Your task to perform on an android device: Open calendar and show me the second week of next month Image 0: 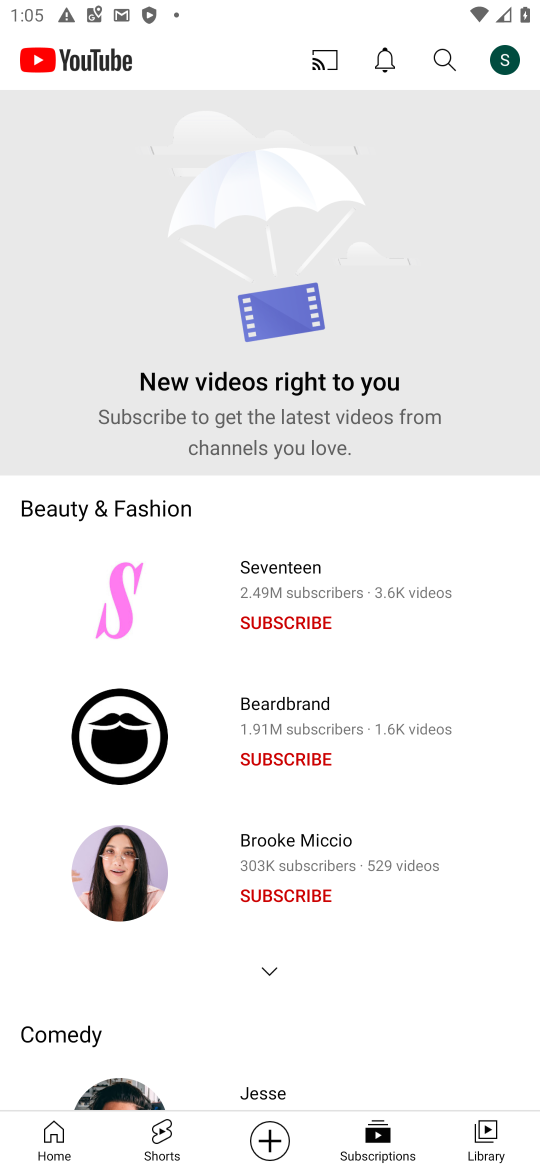
Step 0: press home button
Your task to perform on an android device: Open calendar and show me the second week of next month Image 1: 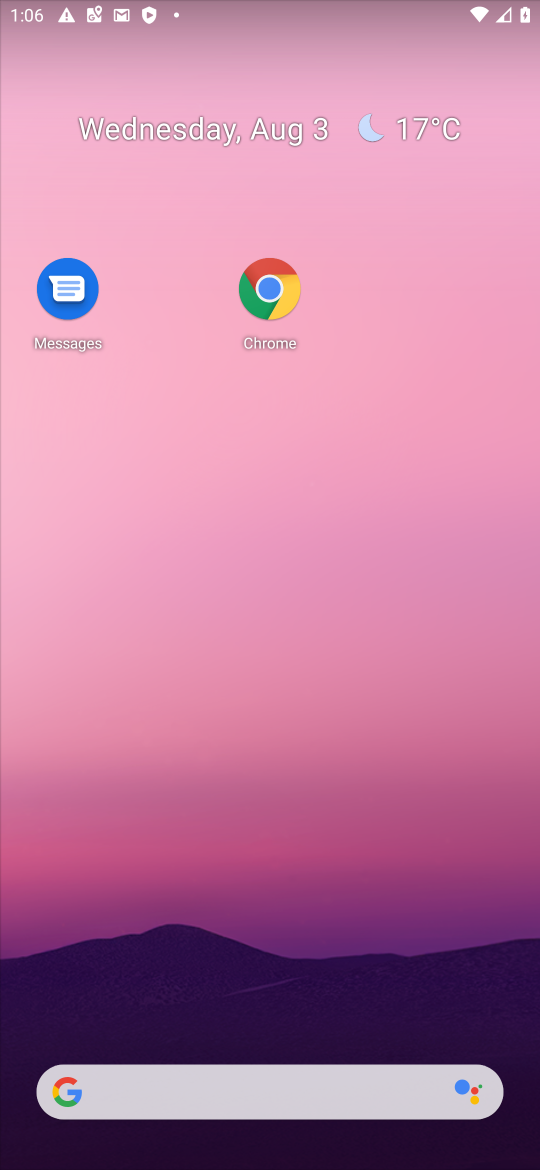
Step 1: drag from (311, 997) to (290, 270)
Your task to perform on an android device: Open calendar and show me the second week of next month Image 2: 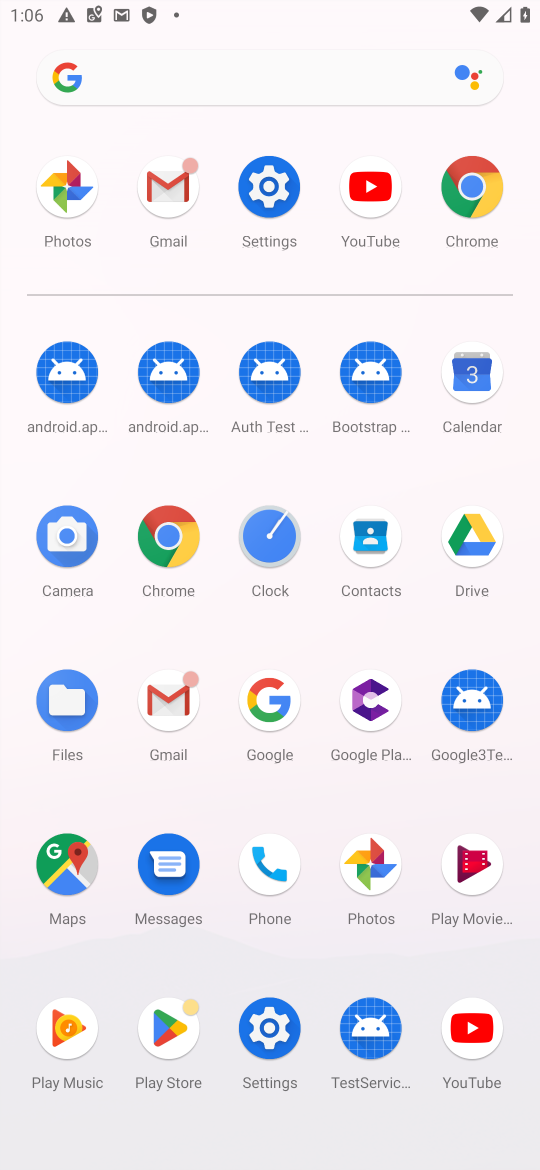
Step 2: click (467, 410)
Your task to perform on an android device: Open calendar and show me the second week of next month Image 3: 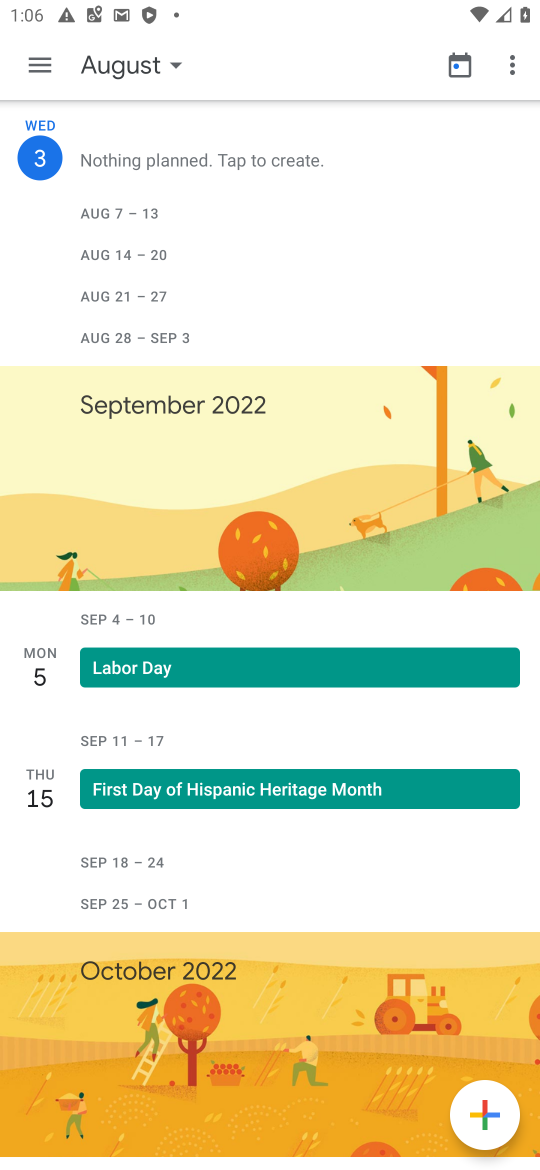
Step 3: task complete